Your task to perform on an android device: open app "Microsoft Outlook" (install if not already installed), go to login, and select forgot password Image 0: 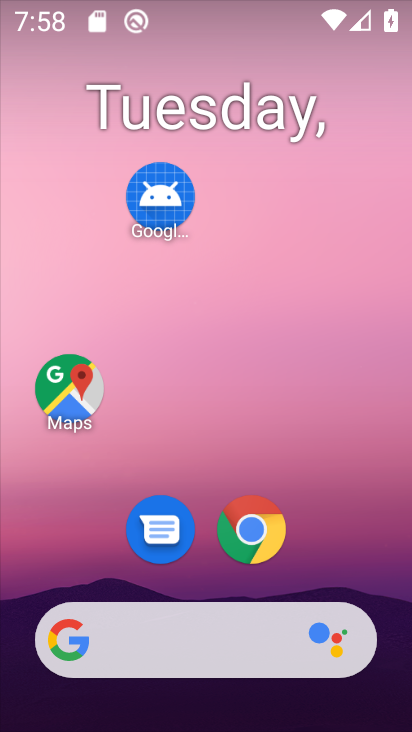
Step 0: drag from (209, 577) to (232, 117)
Your task to perform on an android device: open app "Microsoft Outlook" (install if not already installed), go to login, and select forgot password Image 1: 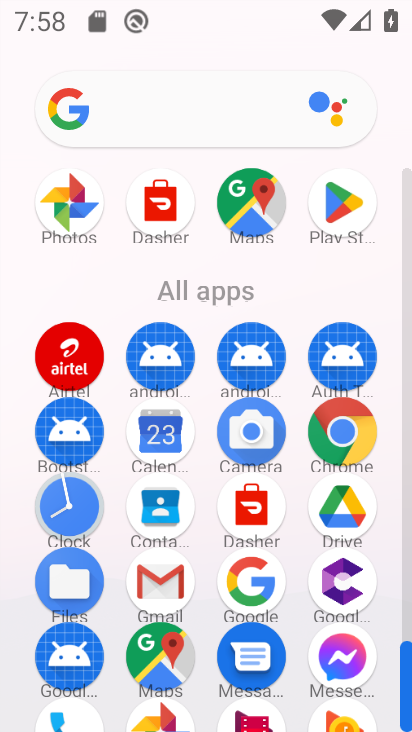
Step 1: click (338, 201)
Your task to perform on an android device: open app "Microsoft Outlook" (install if not already installed), go to login, and select forgot password Image 2: 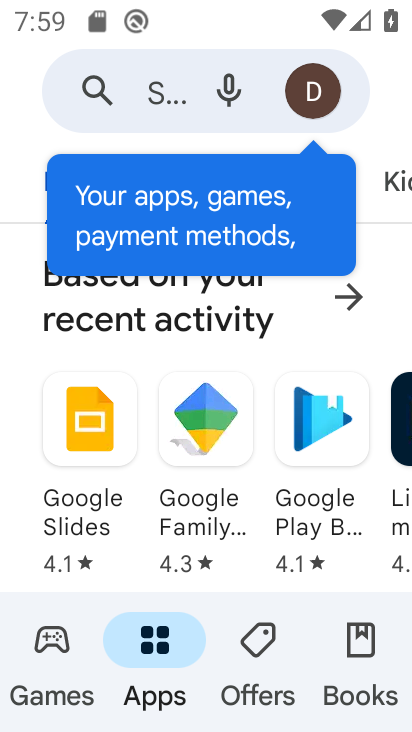
Step 2: click (154, 80)
Your task to perform on an android device: open app "Microsoft Outlook" (install if not already installed), go to login, and select forgot password Image 3: 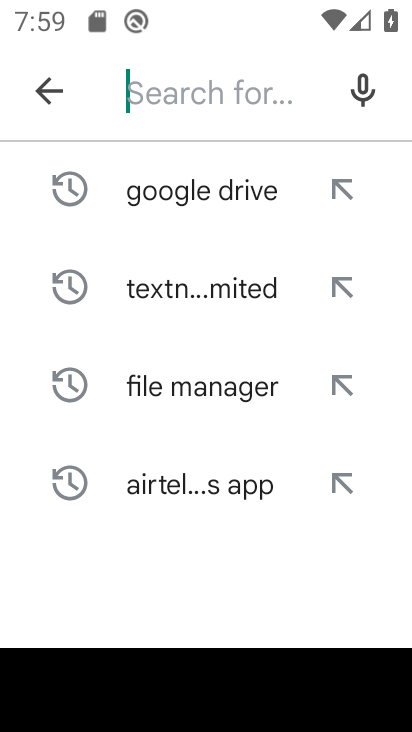
Step 3: type "Microsoft Outlook"
Your task to perform on an android device: open app "Microsoft Outlook" (install if not already installed), go to login, and select forgot password Image 4: 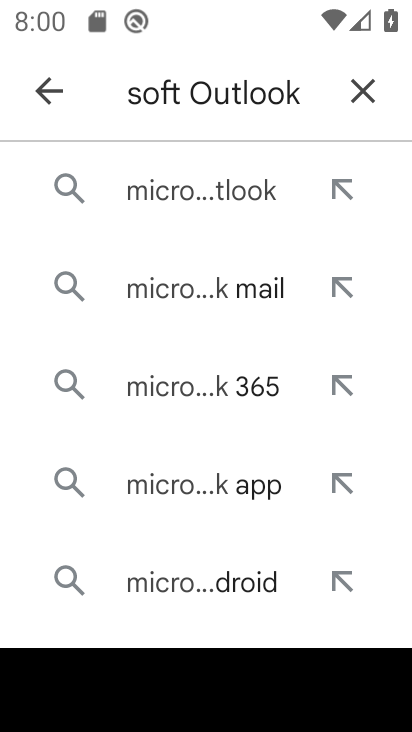
Step 4: click (201, 189)
Your task to perform on an android device: open app "Microsoft Outlook" (install if not already installed), go to login, and select forgot password Image 5: 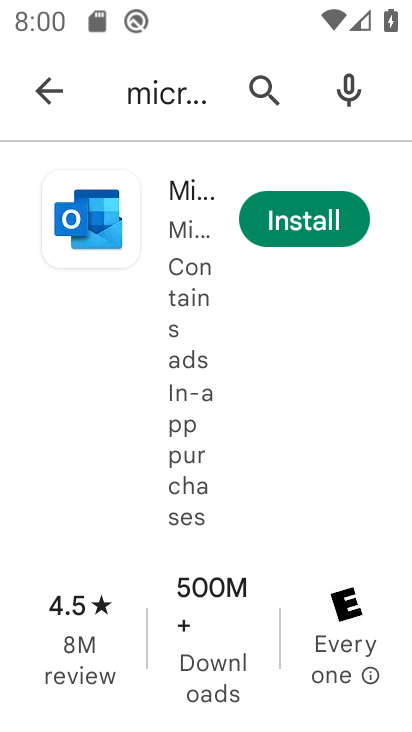
Step 5: click (306, 226)
Your task to perform on an android device: open app "Microsoft Outlook" (install if not already installed), go to login, and select forgot password Image 6: 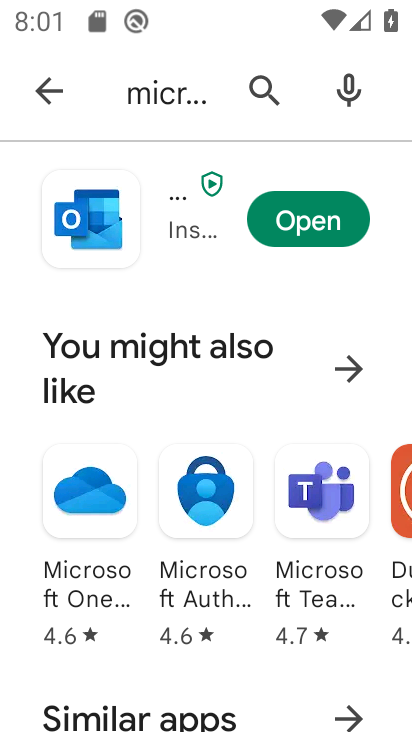
Step 6: click (323, 223)
Your task to perform on an android device: open app "Microsoft Outlook" (install if not already installed), go to login, and select forgot password Image 7: 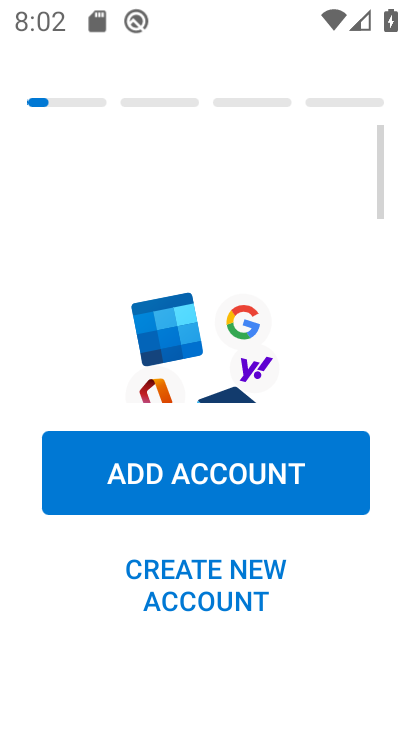
Step 7: click (209, 469)
Your task to perform on an android device: open app "Microsoft Outlook" (install if not already installed), go to login, and select forgot password Image 8: 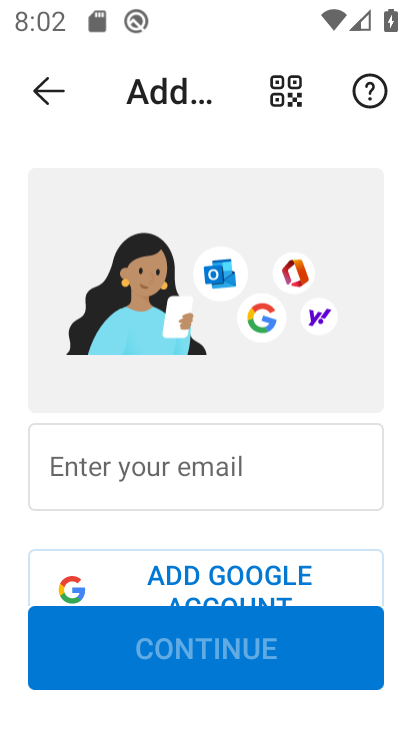
Step 8: task complete